Your task to perform on an android device: What's the weather going to be this weekend? Image 0: 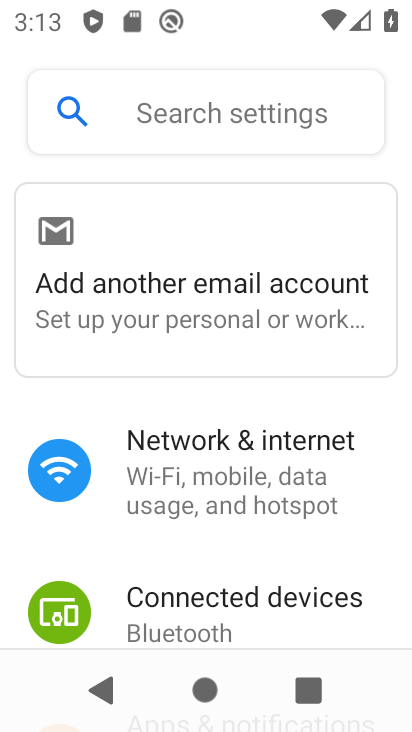
Step 0: press home button
Your task to perform on an android device: What's the weather going to be this weekend? Image 1: 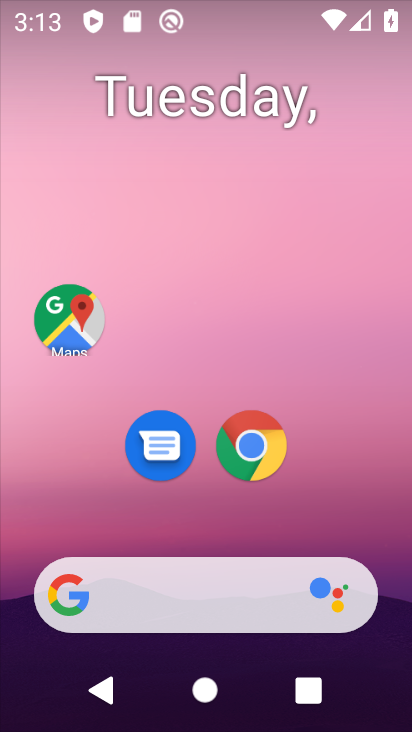
Step 1: drag from (173, 501) to (333, 0)
Your task to perform on an android device: What's the weather going to be this weekend? Image 2: 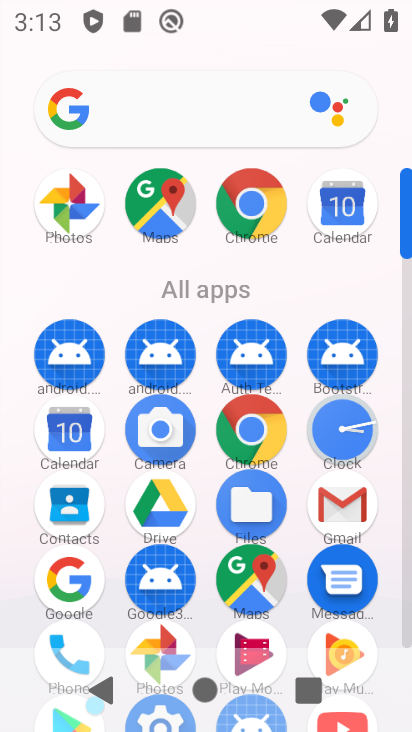
Step 2: click (66, 431)
Your task to perform on an android device: What's the weather going to be this weekend? Image 3: 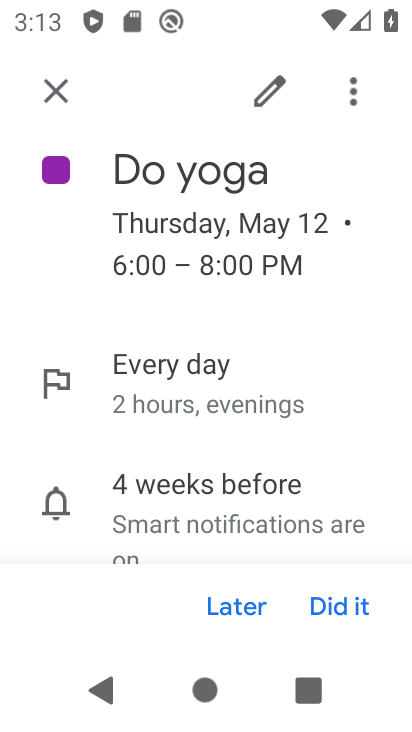
Step 3: press back button
Your task to perform on an android device: What's the weather going to be this weekend? Image 4: 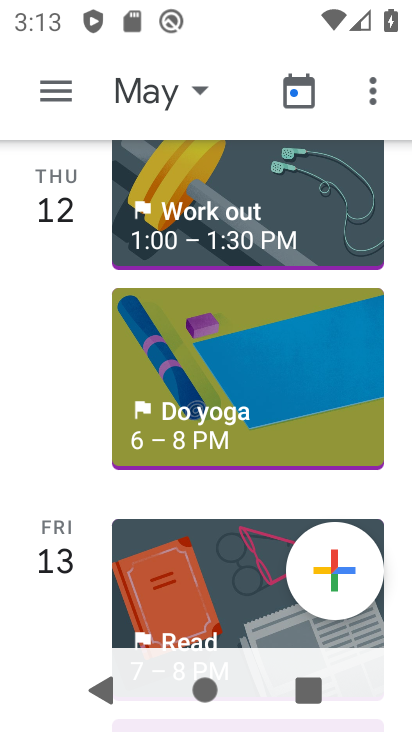
Step 4: press back button
Your task to perform on an android device: What's the weather going to be this weekend? Image 5: 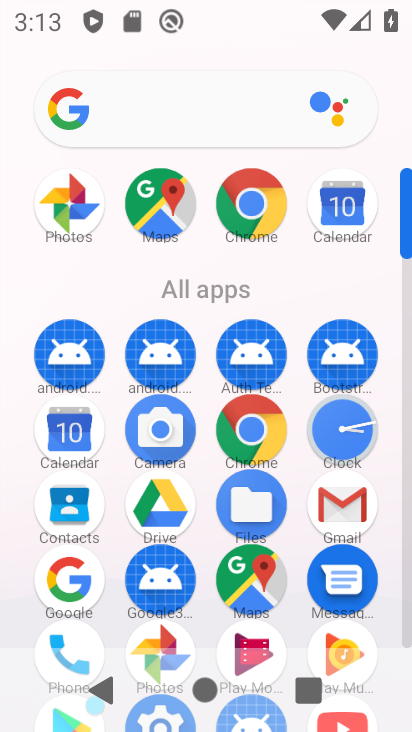
Step 5: press back button
Your task to perform on an android device: What's the weather going to be this weekend? Image 6: 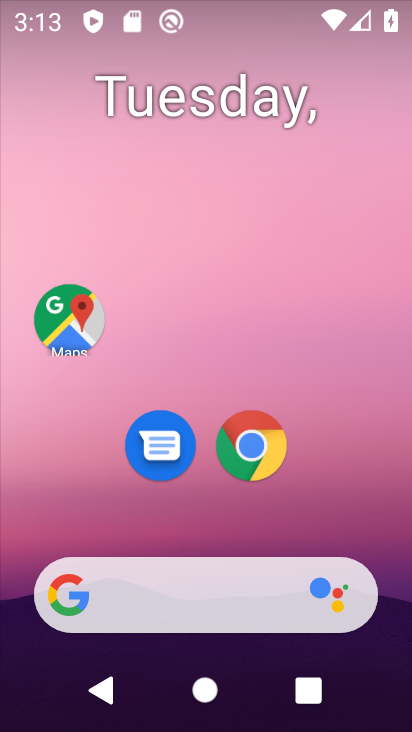
Step 6: drag from (204, 540) to (321, 65)
Your task to perform on an android device: What's the weather going to be this weekend? Image 7: 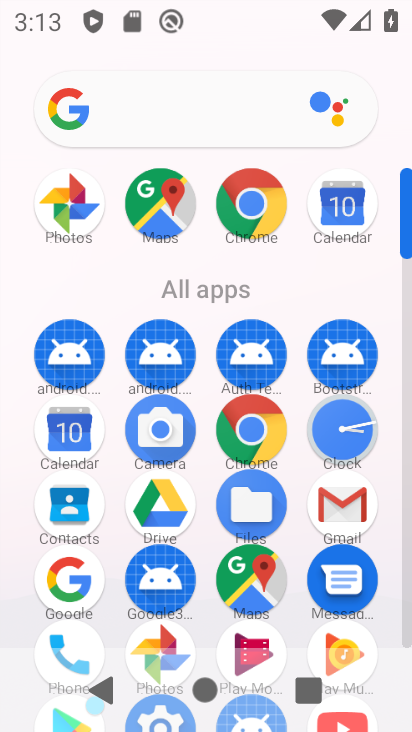
Step 7: press back button
Your task to perform on an android device: What's the weather going to be this weekend? Image 8: 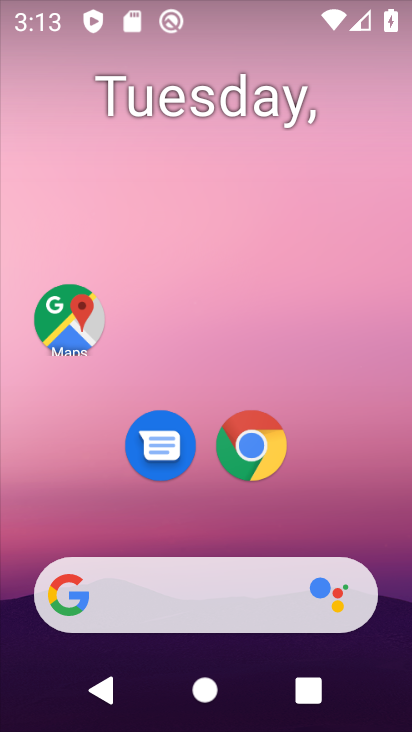
Step 8: click (153, 604)
Your task to perform on an android device: What's the weather going to be this weekend? Image 9: 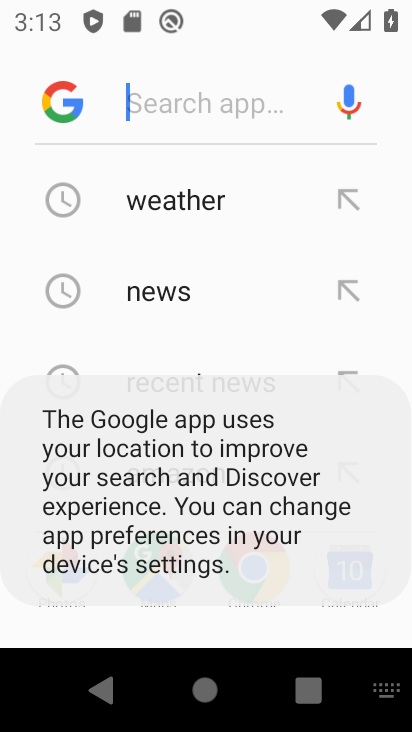
Step 9: click (175, 209)
Your task to perform on an android device: What's the weather going to be this weekend? Image 10: 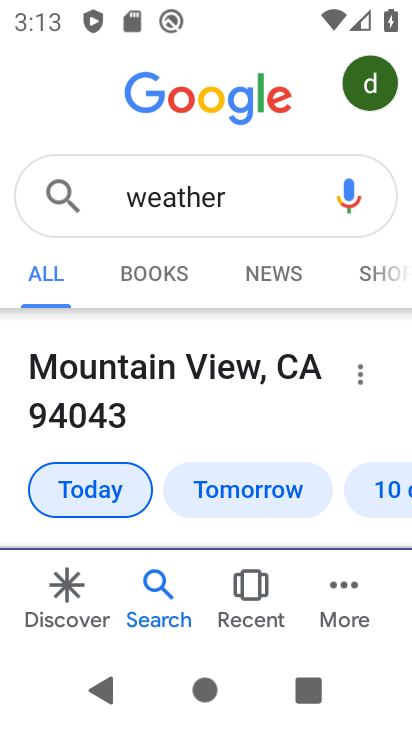
Step 10: click (390, 493)
Your task to perform on an android device: What's the weather going to be this weekend? Image 11: 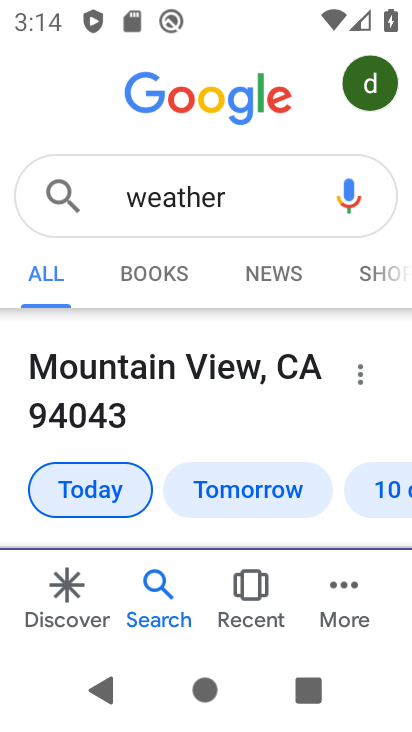
Step 11: click (374, 491)
Your task to perform on an android device: What's the weather going to be this weekend? Image 12: 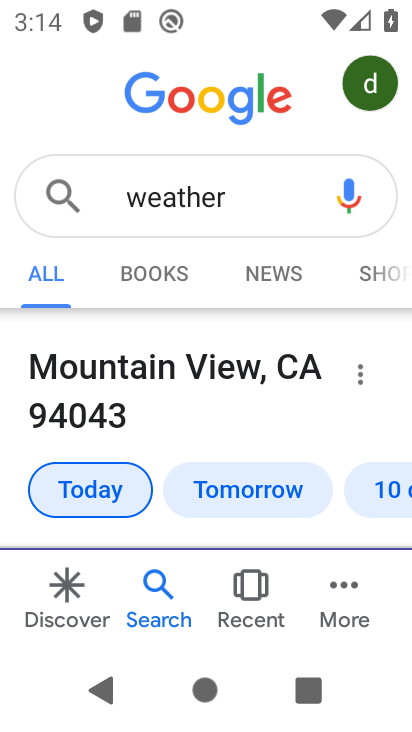
Step 12: task complete